Your task to perform on an android device: change text size in settings app Image 0: 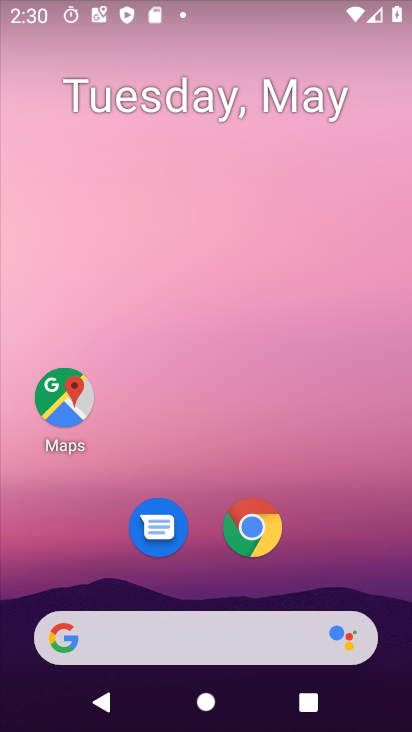
Step 0: press home button
Your task to perform on an android device: change text size in settings app Image 1: 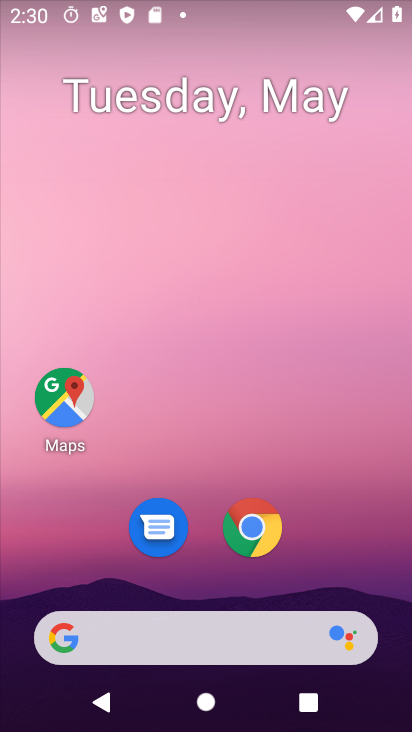
Step 1: drag from (282, 680) to (271, 280)
Your task to perform on an android device: change text size in settings app Image 2: 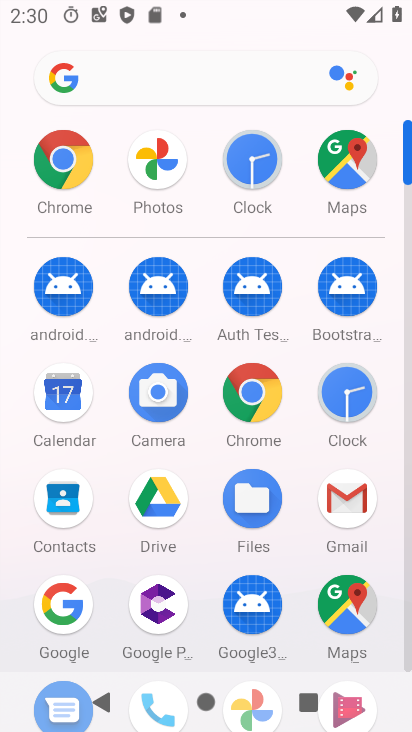
Step 2: drag from (113, 426) to (155, 302)
Your task to perform on an android device: change text size in settings app Image 3: 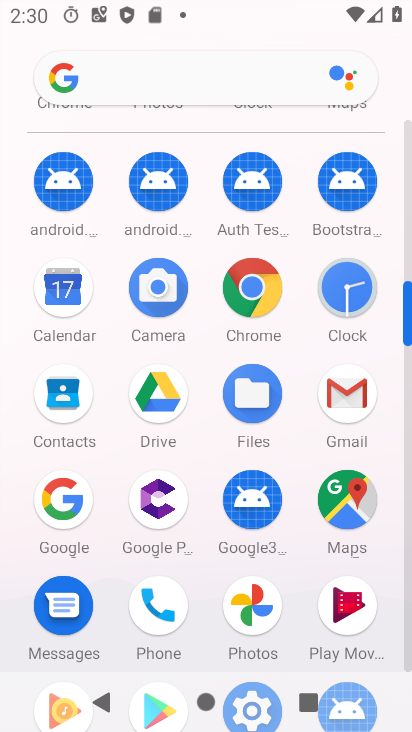
Step 3: drag from (201, 466) to (236, 330)
Your task to perform on an android device: change text size in settings app Image 4: 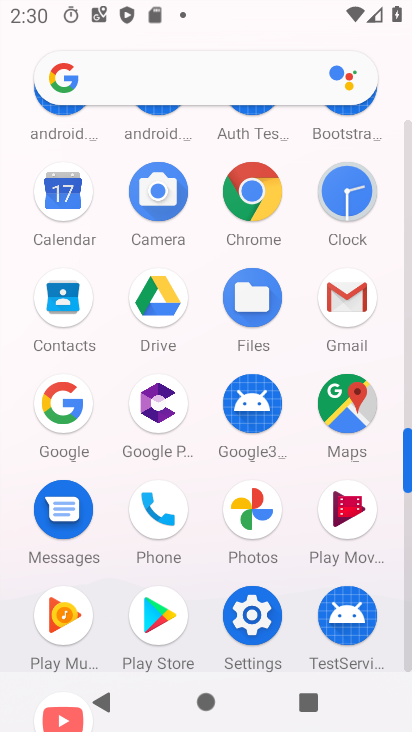
Step 4: click (251, 599)
Your task to perform on an android device: change text size in settings app Image 5: 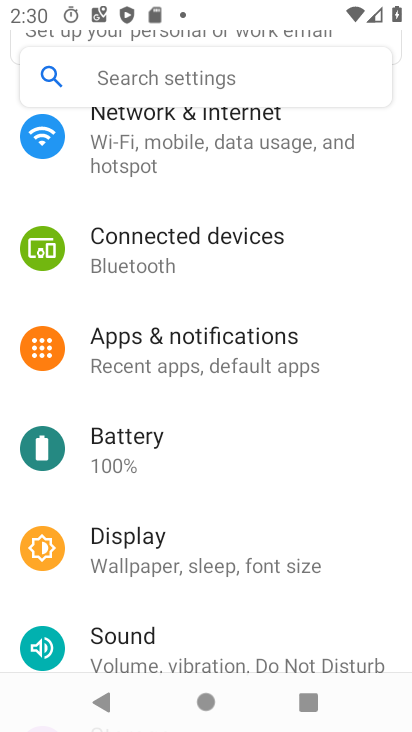
Step 5: drag from (203, 260) to (198, 457)
Your task to perform on an android device: change text size in settings app Image 6: 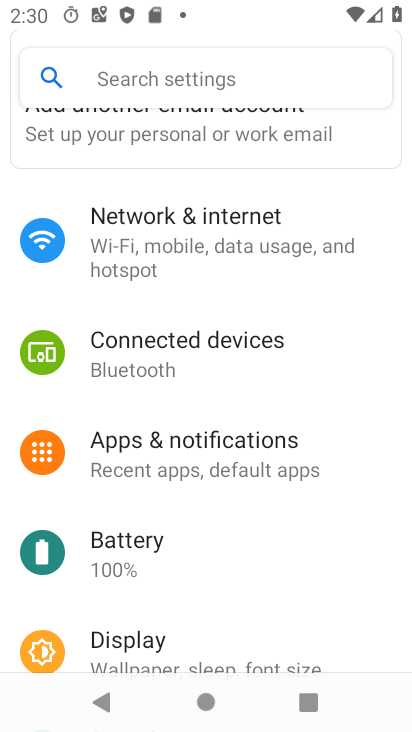
Step 6: click (107, 95)
Your task to perform on an android device: change text size in settings app Image 7: 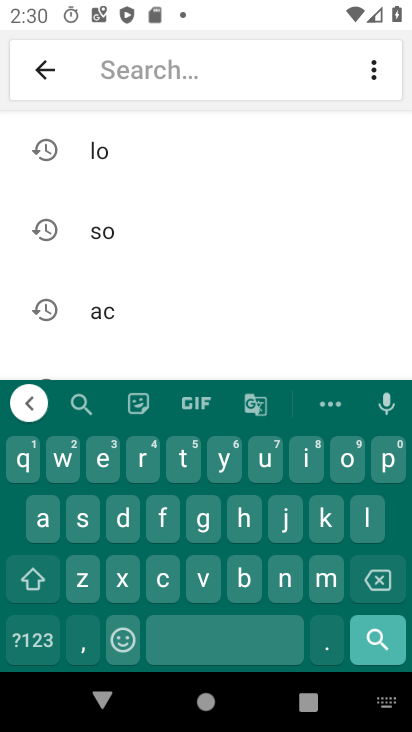
Step 7: click (86, 518)
Your task to perform on an android device: change text size in settings app Image 8: 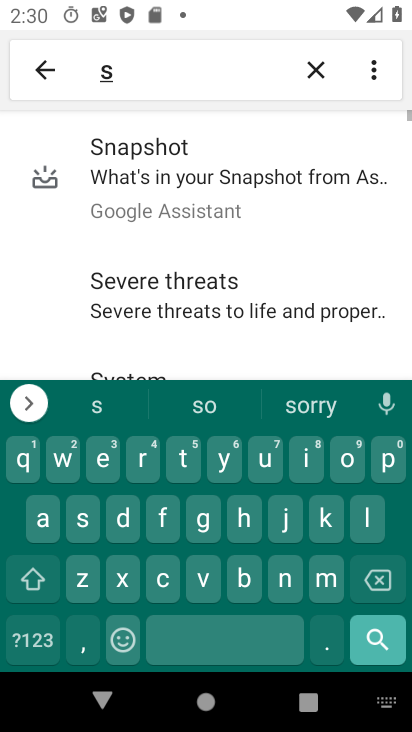
Step 8: click (296, 461)
Your task to perform on an android device: change text size in settings app Image 9: 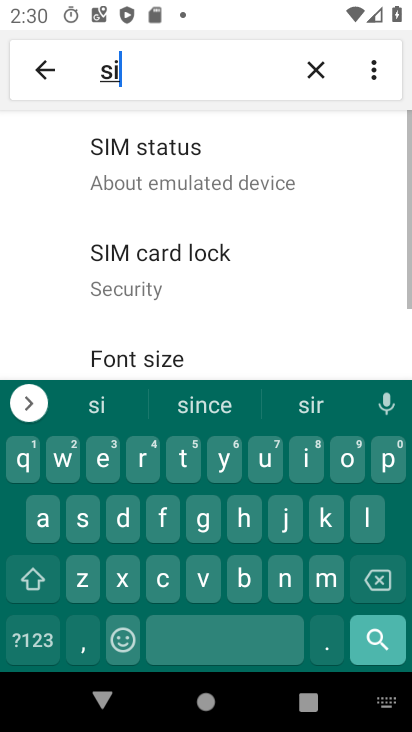
Step 9: click (83, 584)
Your task to perform on an android device: change text size in settings app Image 10: 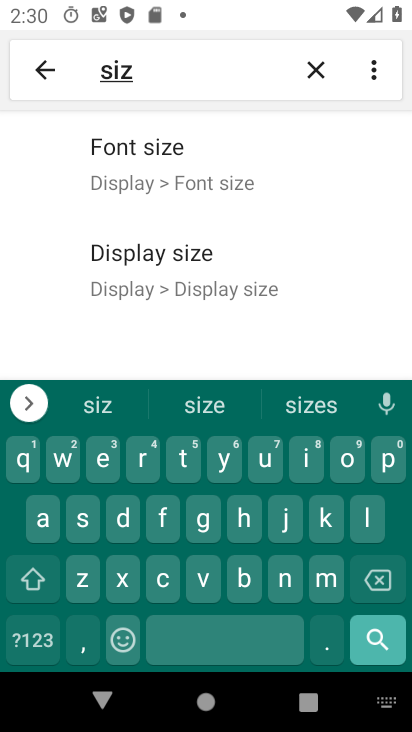
Step 10: click (154, 157)
Your task to perform on an android device: change text size in settings app Image 11: 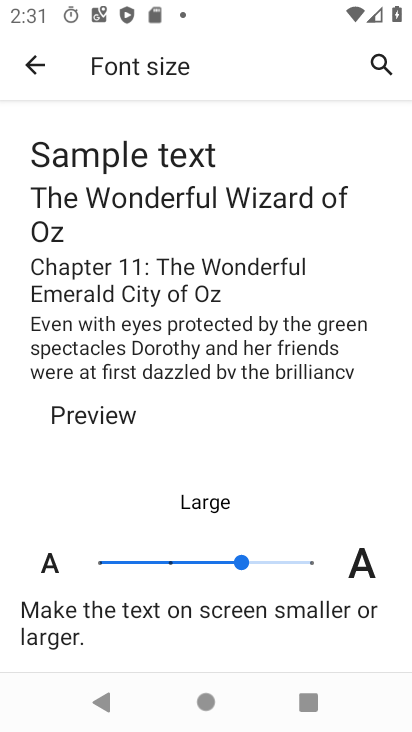
Step 11: click (176, 563)
Your task to perform on an android device: change text size in settings app Image 12: 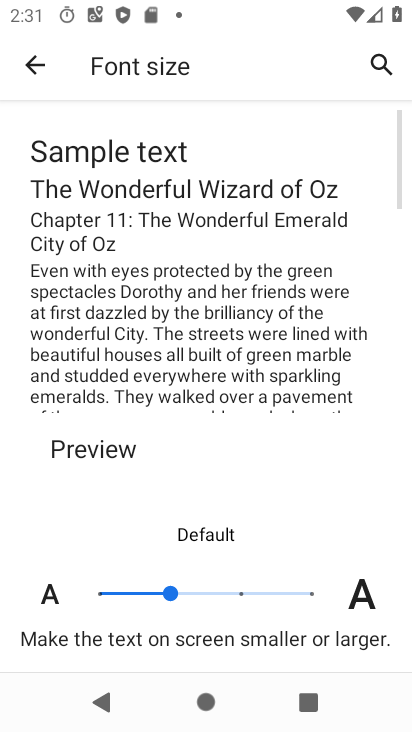
Step 12: task complete